Your task to perform on an android device: toggle notifications settings in the gmail app Image 0: 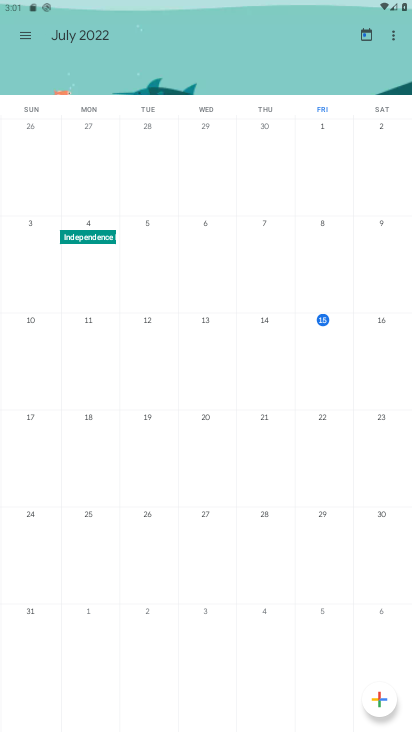
Step 0: press home button
Your task to perform on an android device: toggle notifications settings in the gmail app Image 1: 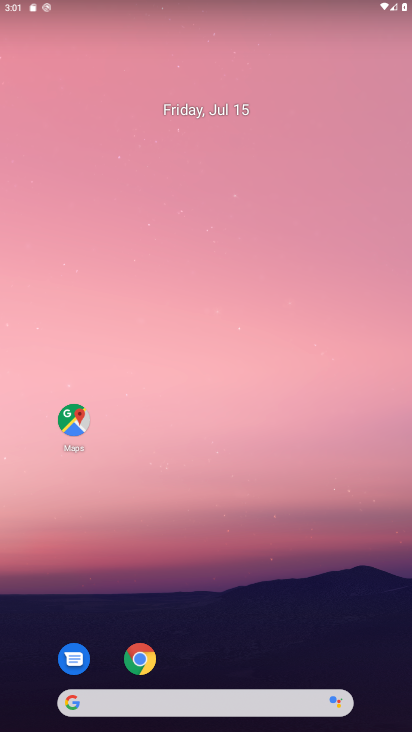
Step 1: drag from (329, 593) to (299, 153)
Your task to perform on an android device: toggle notifications settings in the gmail app Image 2: 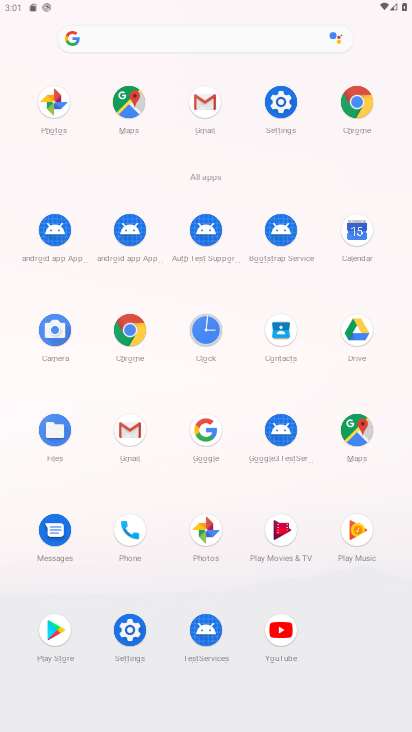
Step 2: click (136, 441)
Your task to perform on an android device: toggle notifications settings in the gmail app Image 3: 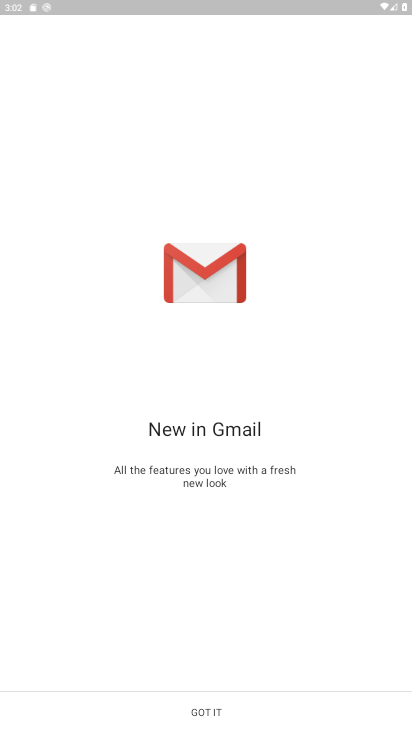
Step 3: click (240, 704)
Your task to perform on an android device: toggle notifications settings in the gmail app Image 4: 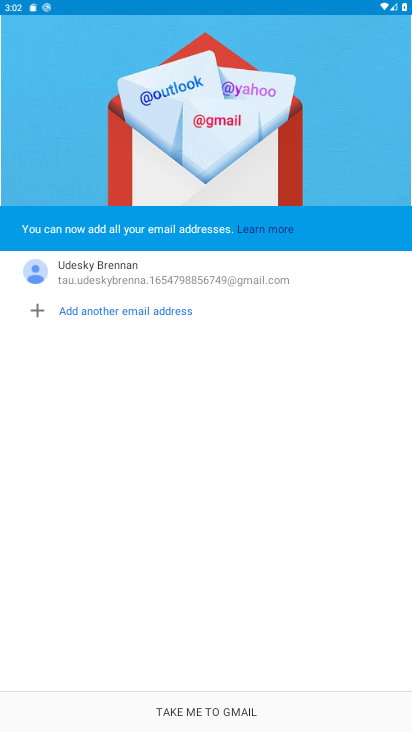
Step 4: click (107, 267)
Your task to perform on an android device: toggle notifications settings in the gmail app Image 5: 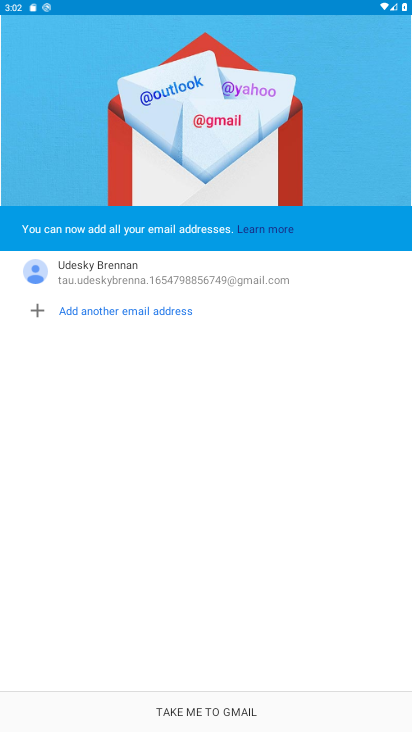
Step 5: click (270, 714)
Your task to perform on an android device: toggle notifications settings in the gmail app Image 6: 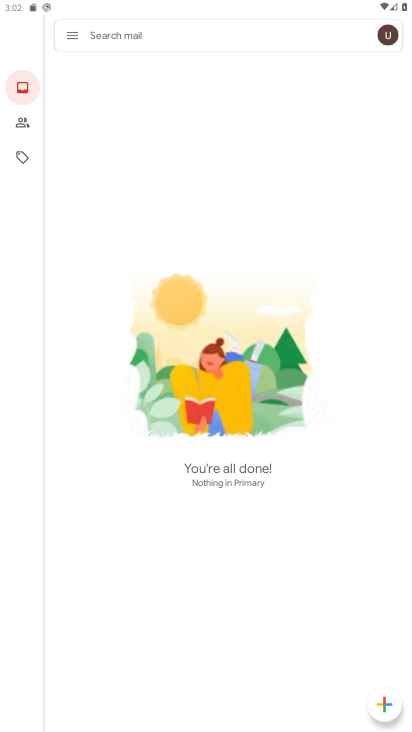
Step 6: click (64, 33)
Your task to perform on an android device: toggle notifications settings in the gmail app Image 7: 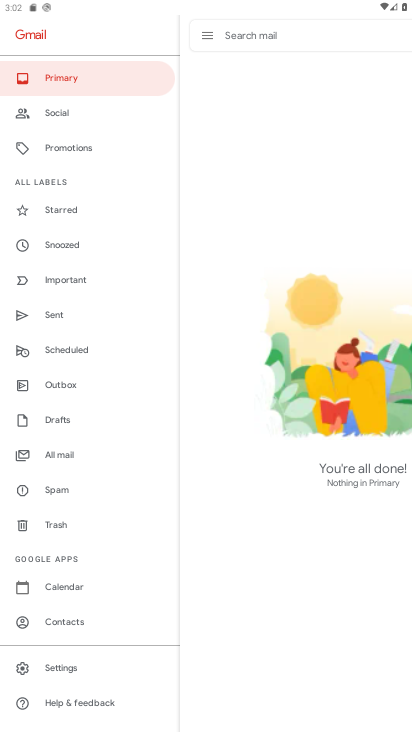
Step 7: click (65, 656)
Your task to perform on an android device: toggle notifications settings in the gmail app Image 8: 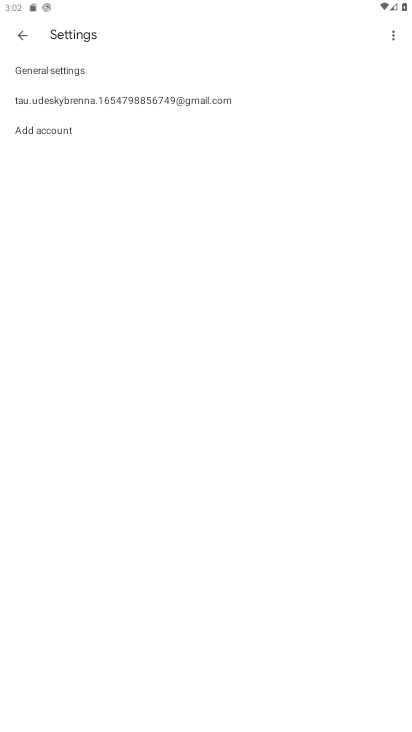
Step 8: click (86, 94)
Your task to perform on an android device: toggle notifications settings in the gmail app Image 9: 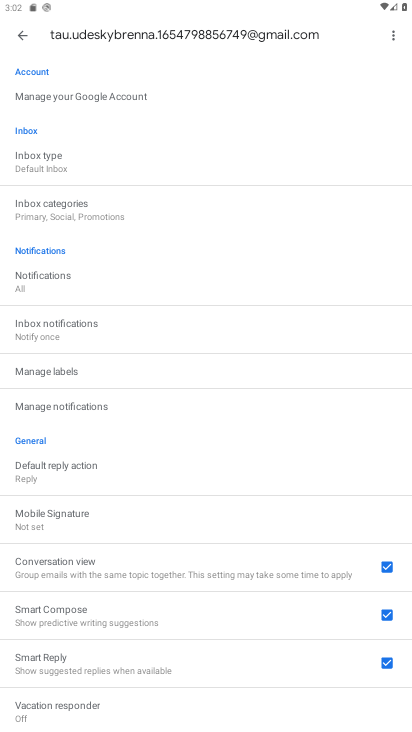
Step 9: click (99, 275)
Your task to perform on an android device: toggle notifications settings in the gmail app Image 10: 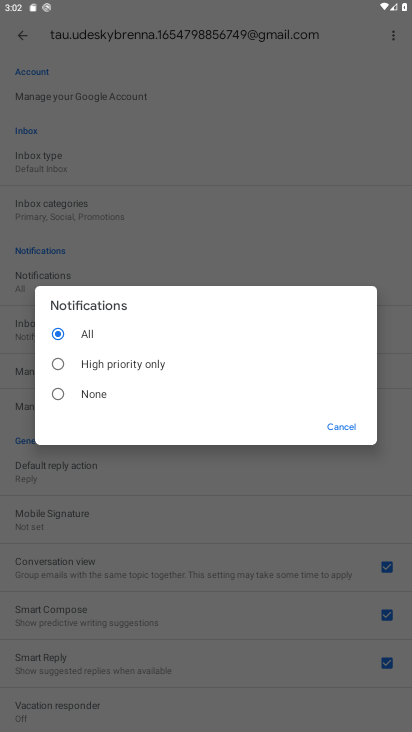
Step 10: click (99, 389)
Your task to perform on an android device: toggle notifications settings in the gmail app Image 11: 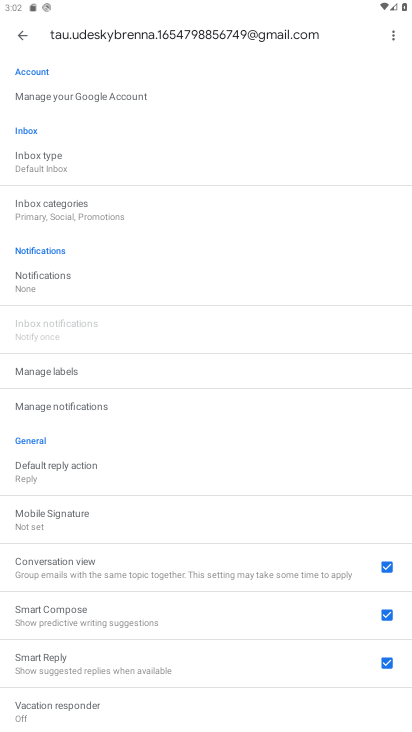
Step 11: click (80, 407)
Your task to perform on an android device: toggle notifications settings in the gmail app Image 12: 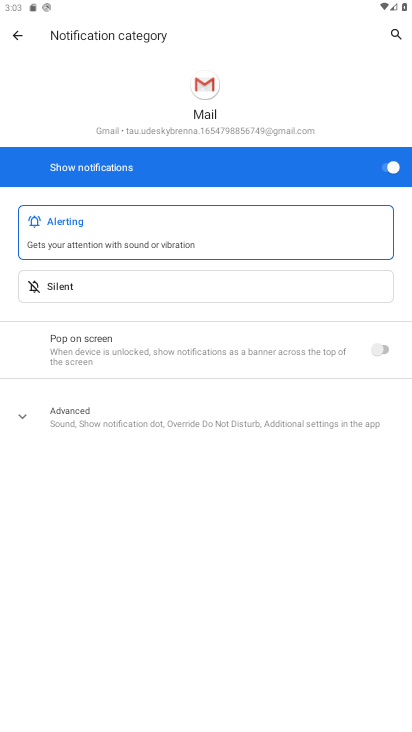
Step 12: click (391, 168)
Your task to perform on an android device: toggle notifications settings in the gmail app Image 13: 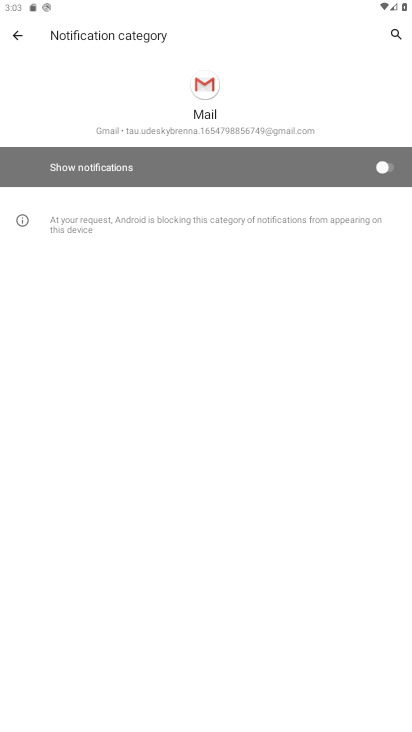
Step 13: task complete